Your task to perform on an android device: Open Reddit.com Image 0: 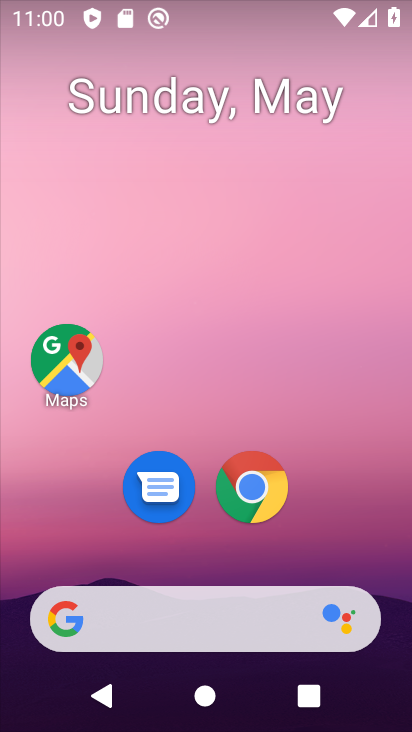
Step 0: click (408, 348)
Your task to perform on an android device: Open Reddit.com Image 1: 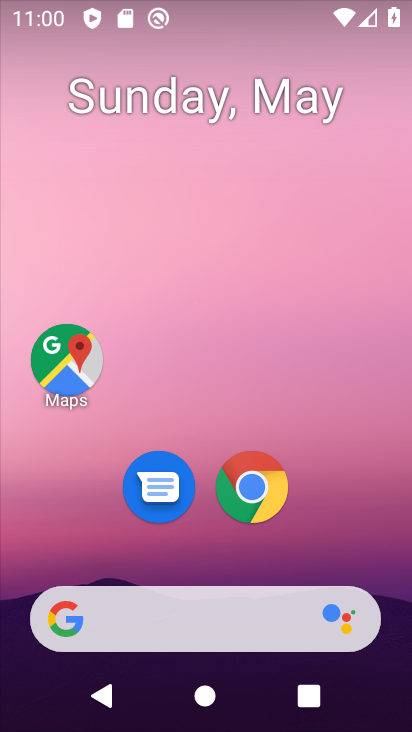
Step 1: click (256, 485)
Your task to perform on an android device: Open Reddit.com Image 2: 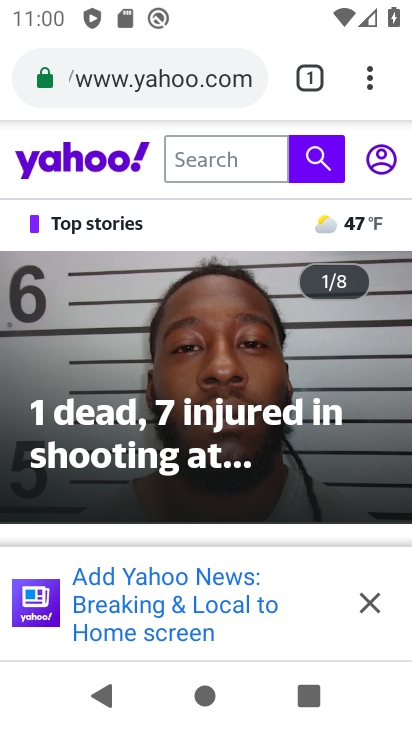
Step 2: click (124, 86)
Your task to perform on an android device: Open Reddit.com Image 3: 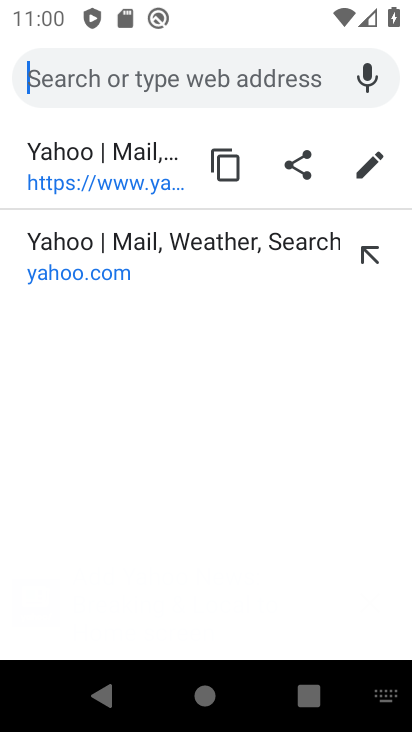
Step 3: type "Reddit.com"
Your task to perform on an android device: Open Reddit.com Image 4: 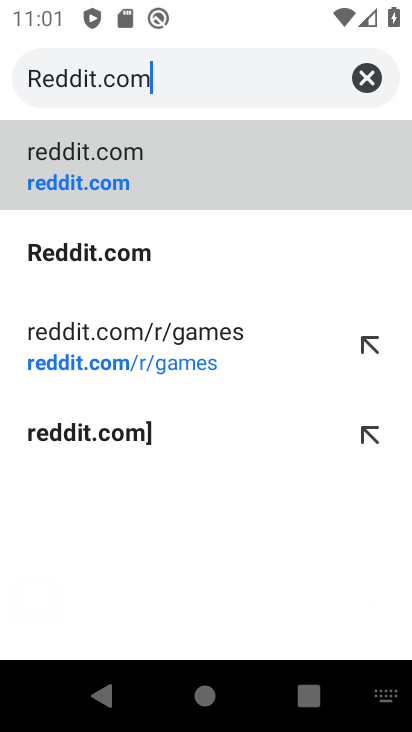
Step 4: click (83, 176)
Your task to perform on an android device: Open Reddit.com Image 5: 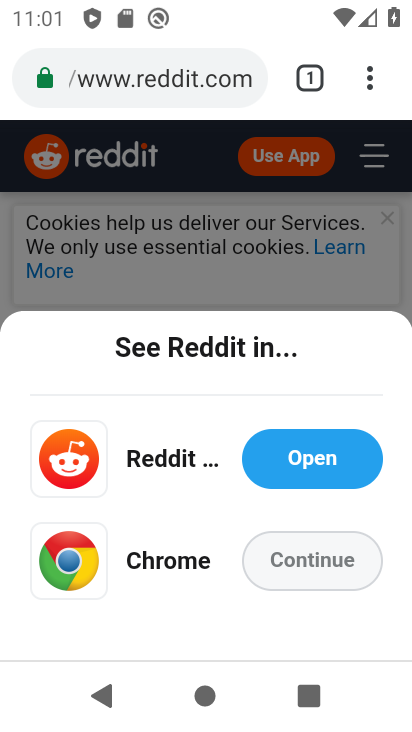
Step 5: task complete